Your task to perform on an android device: change keyboard looks Image 0: 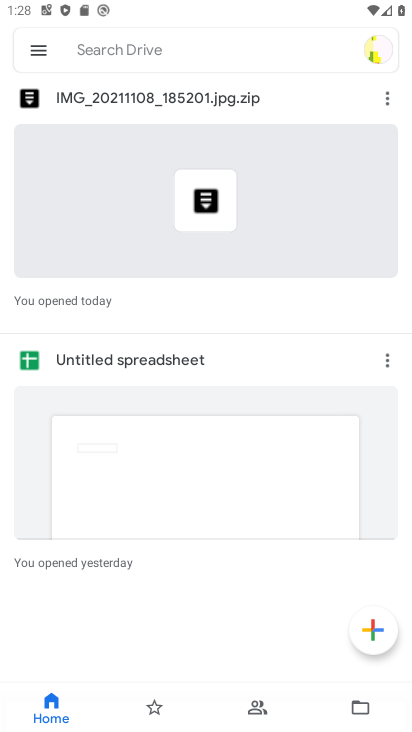
Step 0: press home button
Your task to perform on an android device: change keyboard looks Image 1: 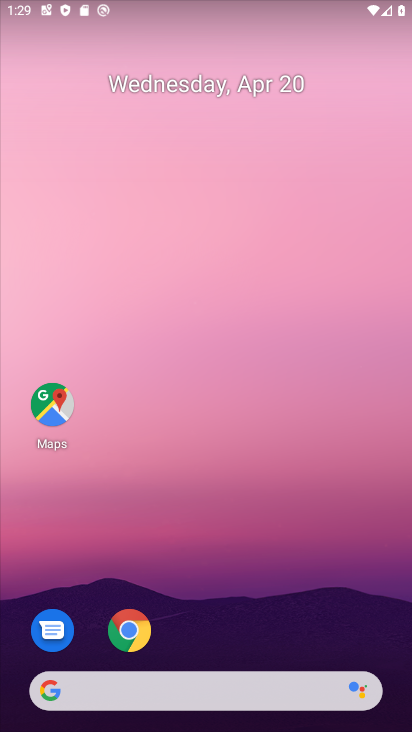
Step 1: drag from (353, 190) to (366, 7)
Your task to perform on an android device: change keyboard looks Image 2: 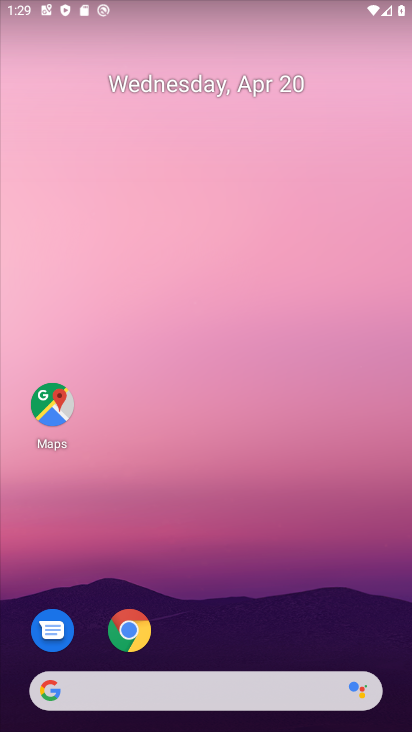
Step 2: drag from (355, 569) to (315, 214)
Your task to perform on an android device: change keyboard looks Image 3: 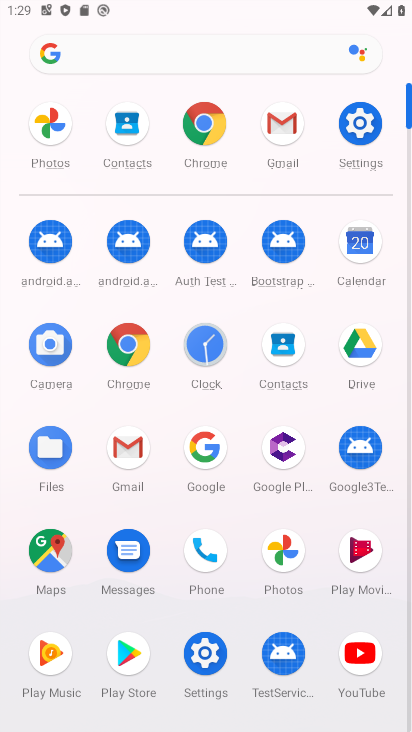
Step 3: click (199, 648)
Your task to perform on an android device: change keyboard looks Image 4: 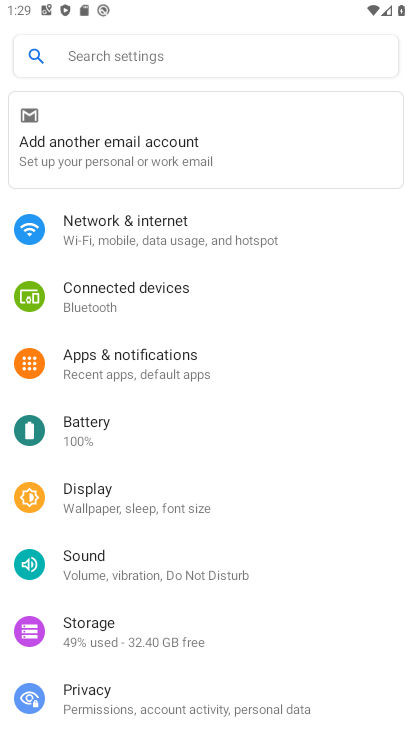
Step 4: drag from (229, 645) to (255, 421)
Your task to perform on an android device: change keyboard looks Image 5: 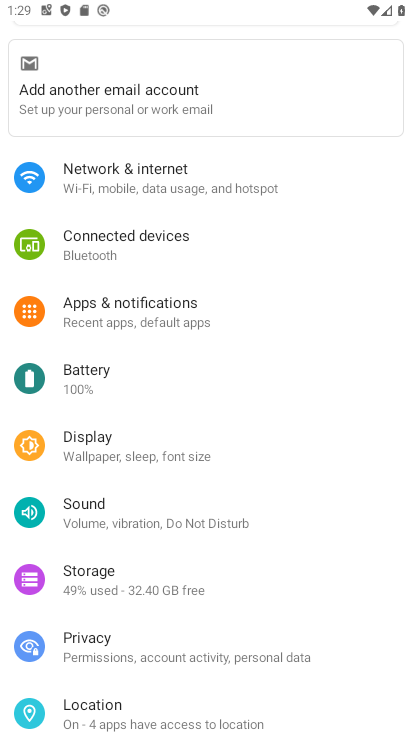
Step 5: drag from (253, 612) to (315, 392)
Your task to perform on an android device: change keyboard looks Image 6: 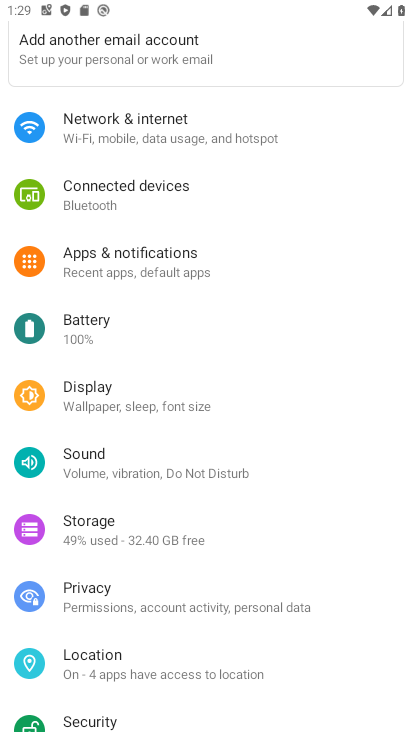
Step 6: drag from (306, 454) to (328, 384)
Your task to perform on an android device: change keyboard looks Image 7: 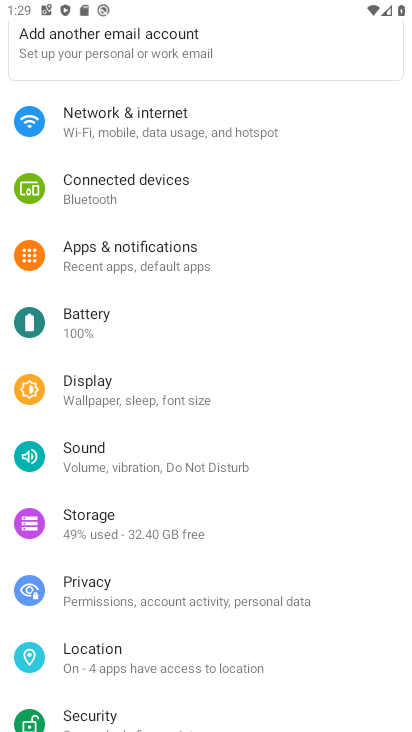
Step 7: drag from (202, 709) to (295, 376)
Your task to perform on an android device: change keyboard looks Image 8: 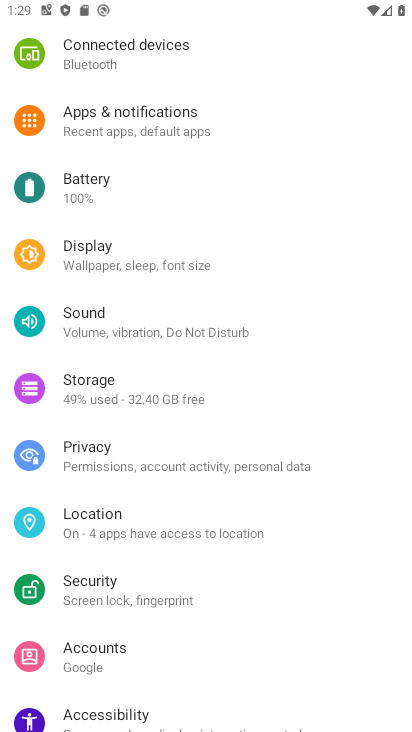
Step 8: drag from (281, 609) to (334, 337)
Your task to perform on an android device: change keyboard looks Image 9: 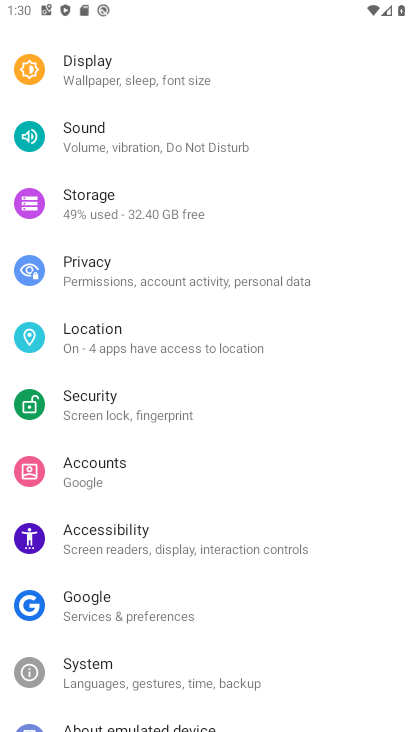
Step 9: drag from (302, 626) to (339, 404)
Your task to perform on an android device: change keyboard looks Image 10: 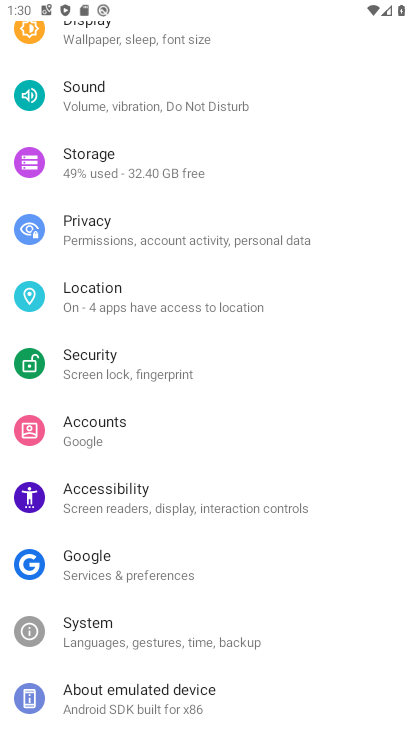
Step 10: click (145, 619)
Your task to perform on an android device: change keyboard looks Image 11: 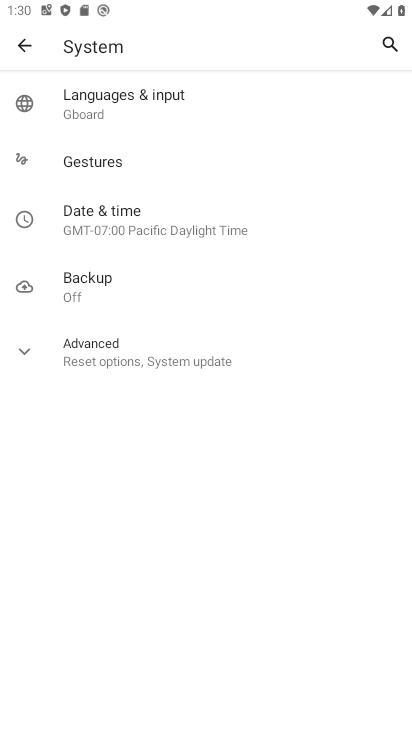
Step 11: click (139, 85)
Your task to perform on an android device: change keyboard looks Image 12: 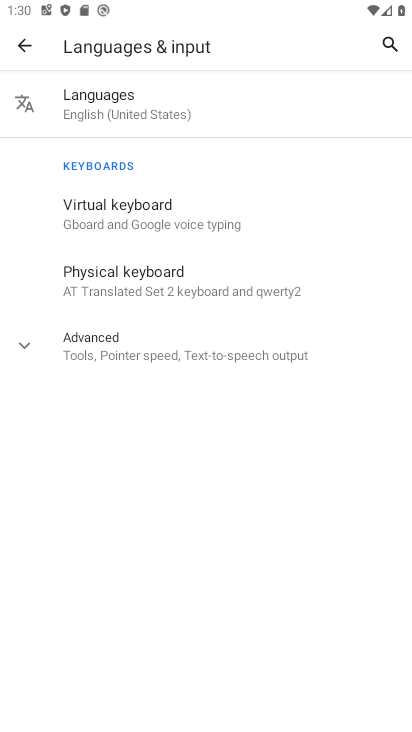
Step 12: click (141, 203)
Your task to perform on an android device: change keyboard looks Image 13: 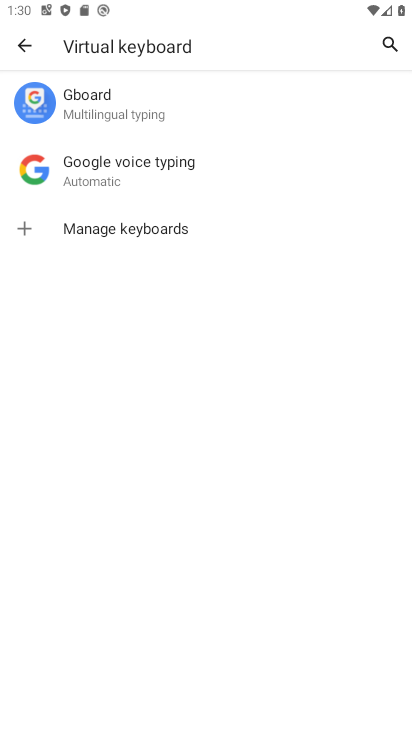
Step 13: click (133, 73)
Your task to perform on an android device: change keyboard looks Image 14: 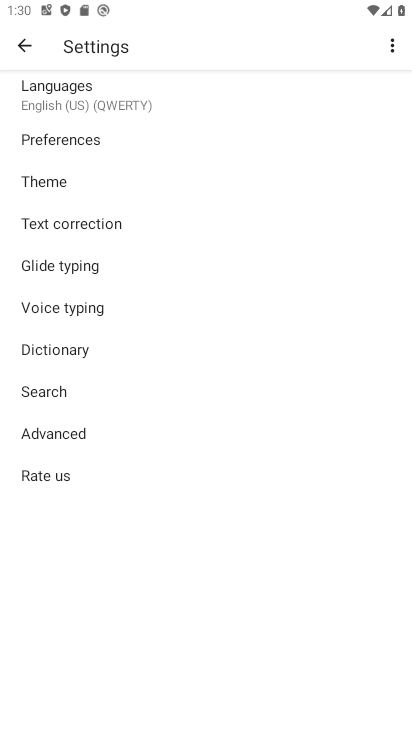
Step 14: click (51, 177)
Your task to perform on an android device: change keyboard looks Image 15: 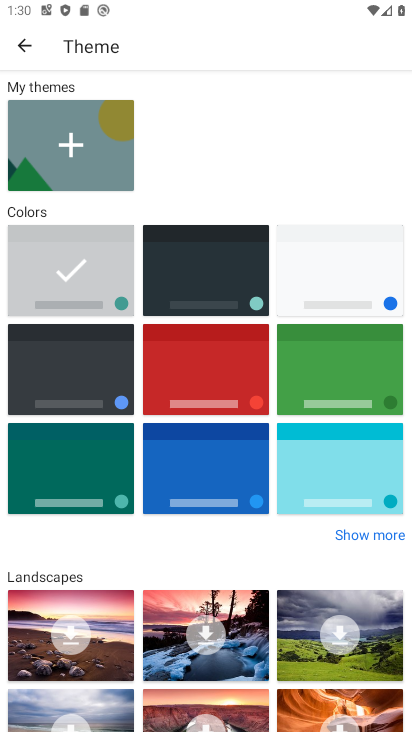
Step 15: click (208, 288)
Your task to perform on an android device: change keyboard looks Image 16: 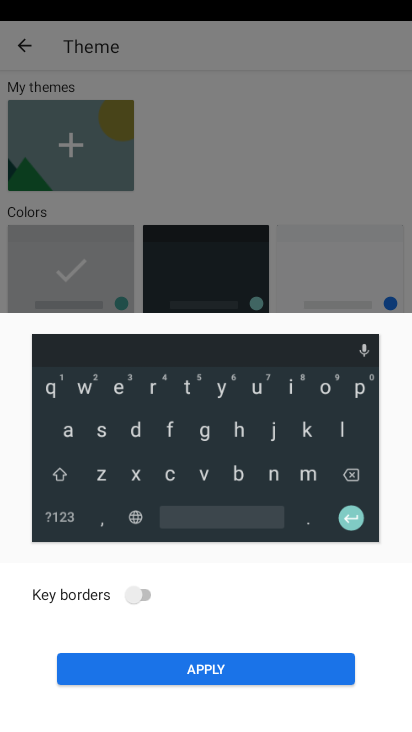
Step 16: click (234, 658)
Your task to perform on an android device: change keyboard looks Image 17: 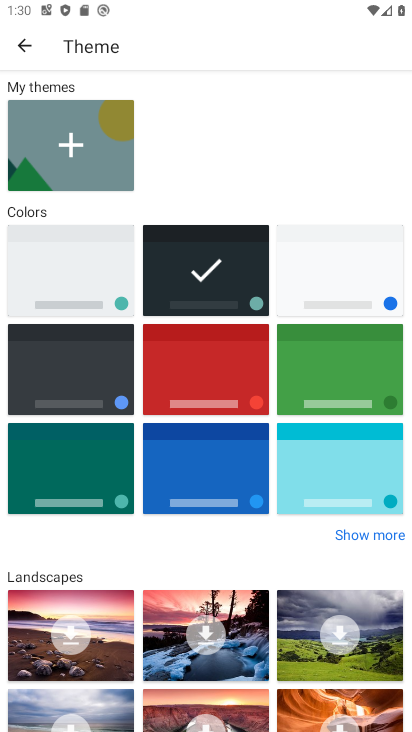
Step 17: task complete